Your task to perform on an android device: Go to wifi settings Image 0: 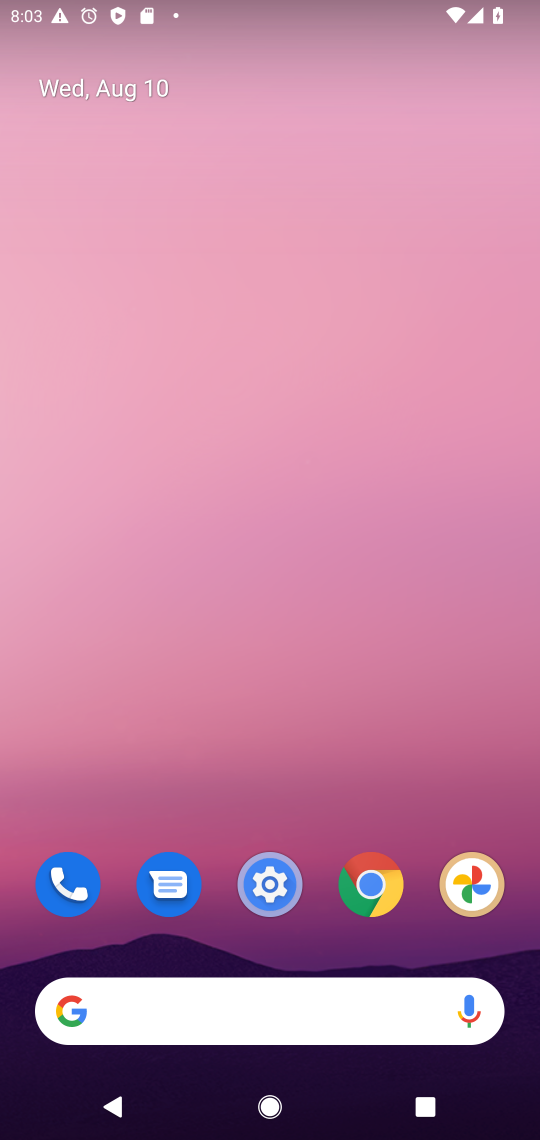
Step 0: click (269, 890)
Your task to perform on an android device: Go to wifi settings Image 1: 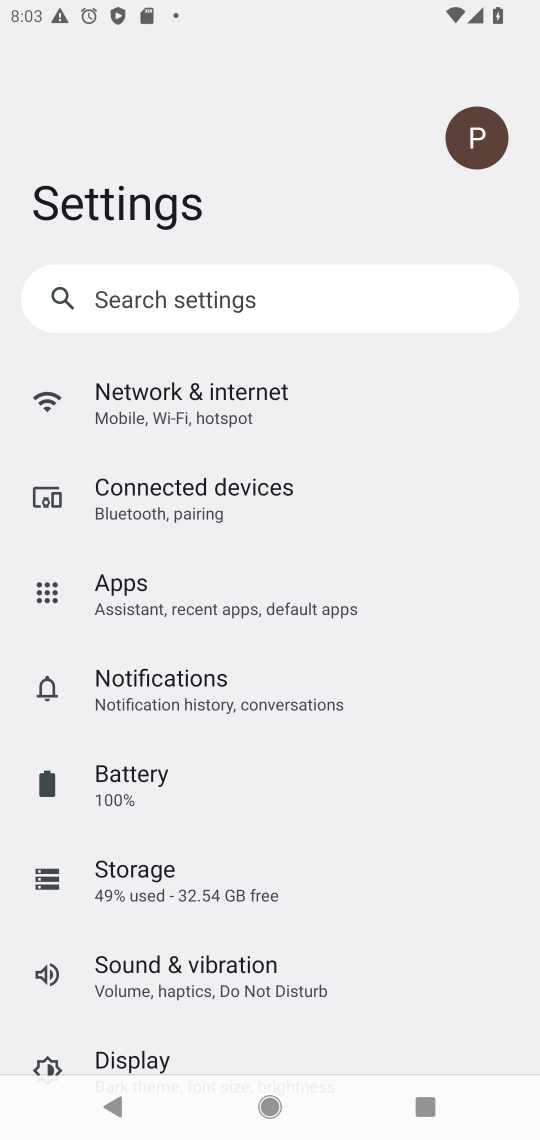
Step 1: click (190, 388)
Your task to perform on an android device: Go to wifi settings Image 2: 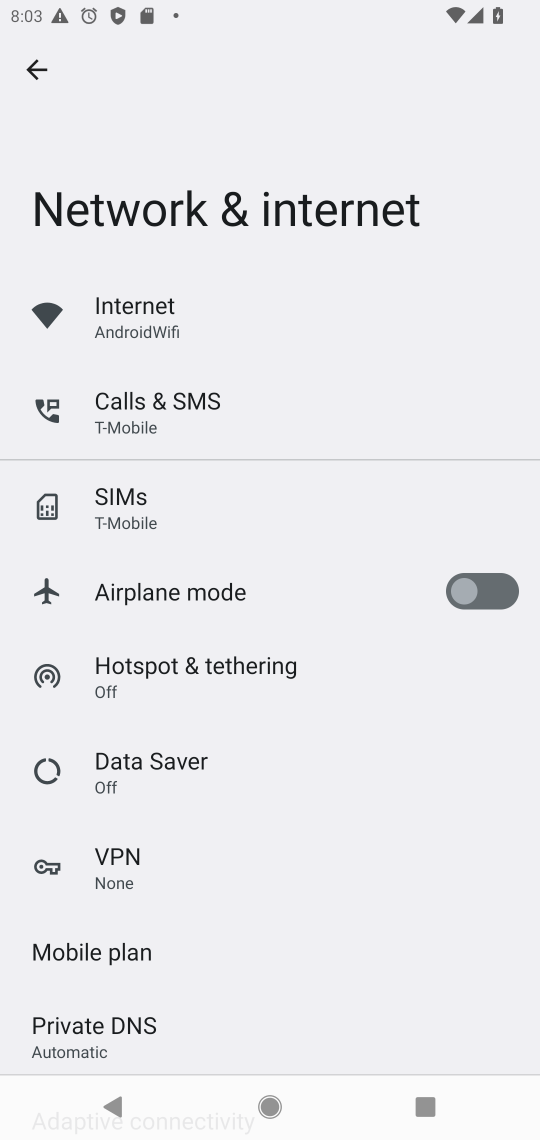
Step 2: click (132, 302)
Your task to perform on an android device: Go to wifi settings Image 3: 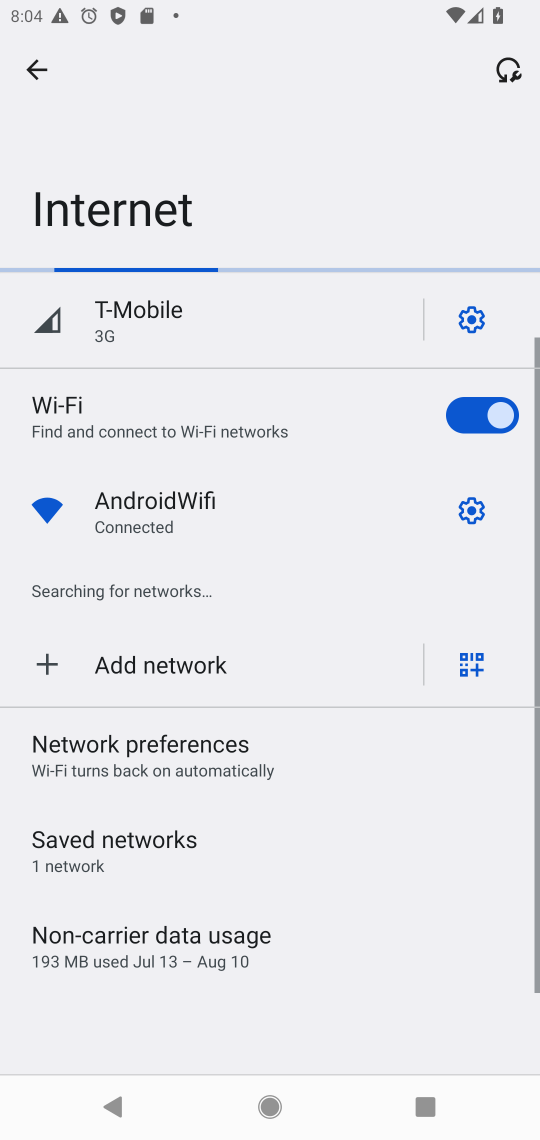
Step 3: task complete